Your task to perform on an android device: Search for usb-c on costco, select the first entry, add it to the cart, then select checkout. Image 0: 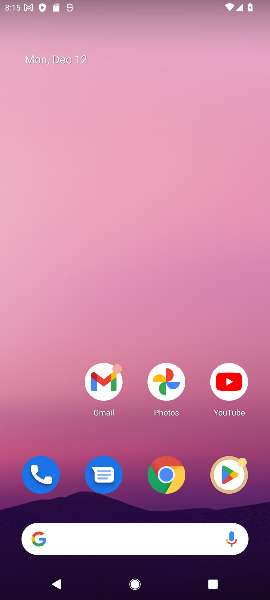
Step 0: press home button
Your task to perform on an android device: Search for usb-c on costco, select the first entry, add it to the cart, then select checkout. Image 1: 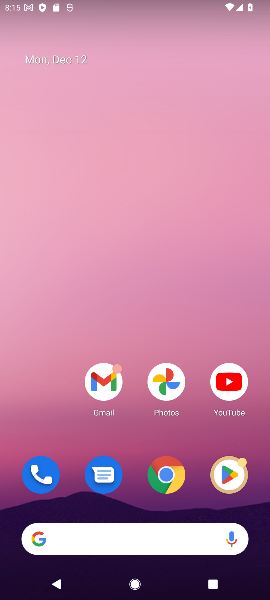
Step 1: click (167, 473)
Your task to perform on an android device: Search for usb-c on costco, select the first entry, add it to the cart, then select checkout. Image 2: 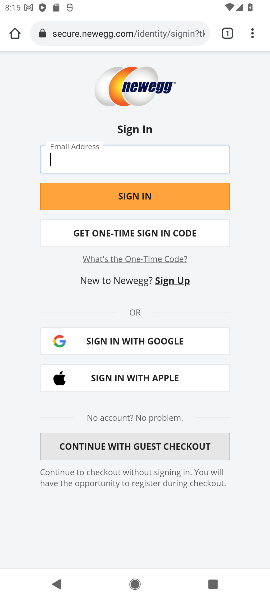
Step 2: click (99, 33)
Your task to perform on an android device: Search for usb-c on costco, select the first entry, add it to the cart, then select checkout. Image 3: 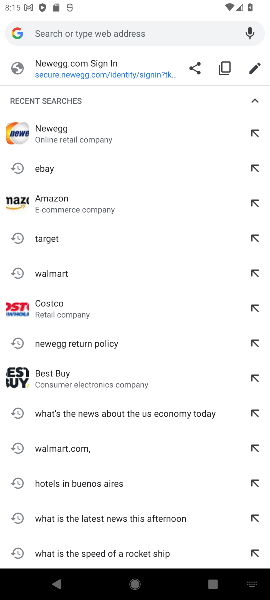
Step 3: type "costco"
Your task to perform on an android device: Search for usb-c on costco, select the first entry, add it to the cart, then select checkout. Image 4: 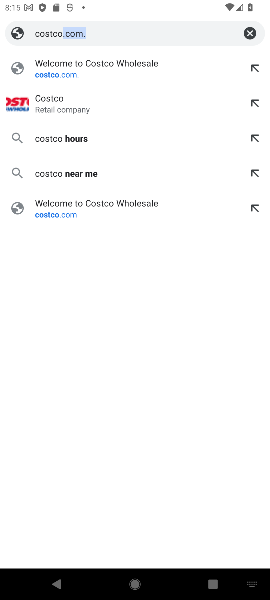
Step 4: click (54, 106)
Your task to perform on an android device: Search for usb-c on costco, select the first entry, add it to the cart, then select checkout. Image 5: 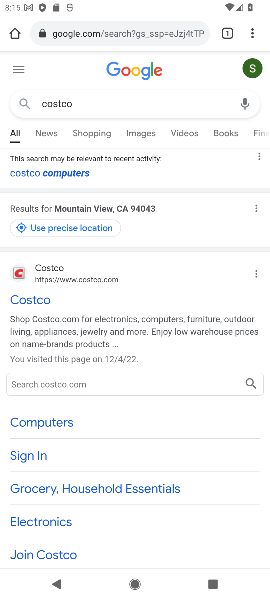
Step 5: click (52, 272)
Your task to perform on an android device: Search for usb-c on costco, select the first entry, add it to the cart, then select checkout. Image 6: 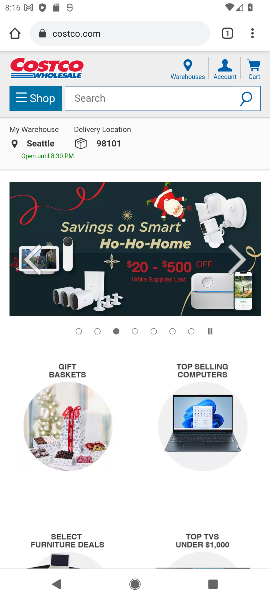
Step 6: click (153, 84)
Your task to perform on an android device: Search for usb-c on costco, select the first entry, add it to the cart, then select checkout. Image 7: 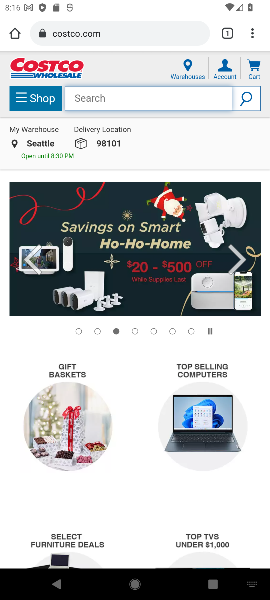
Step 7: click (175, 97)
Your task to perform on an android device: Search for usb-c on costco, select the first entry, add it to the cart, then select checkout. Image 8: 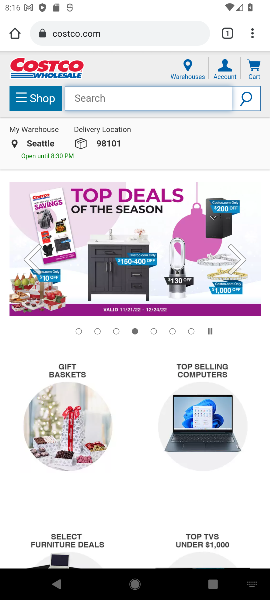
Step 8: click (149, 101)
Your task to perform on an android device: Search for usb-c on costco, select the first entry, add it to the cart, then select checkout. Image 9: 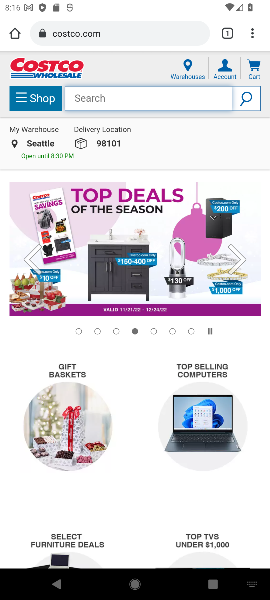
Step 9: click (95, 99)
Your task to perform on an android device: Search for usb-c on costco, select the first entry, add it to the cart, then select checkout. Image 10: 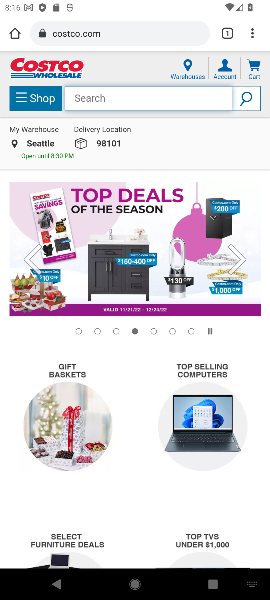
Step 10: click (148, 98)
Your task to perform on an android device: Search for usb-c on costco, select the first entry, add it to the cart, then select checkout. Image 11: 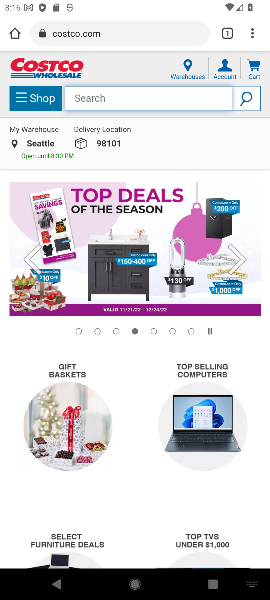
Step 11: click (148, 98)
Your task to perform on an android device: Search for usb-c on costco, select the first entry, add it to the cart, then select checkout. Image 12: 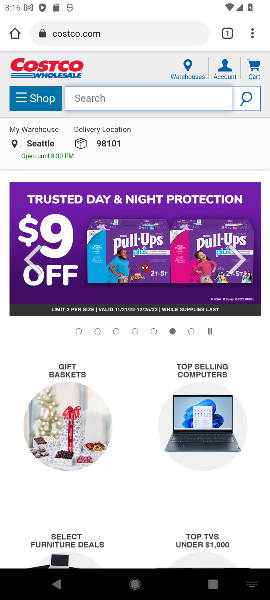
Step 12: type "usb-c"
Your task to perform on an android device: Search for usb-c on costco, select the first entry, add it to the cart, then select checkout. Image 13: 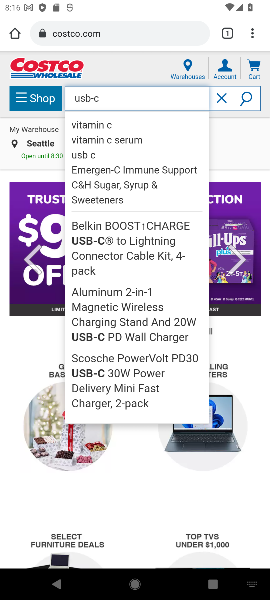
Step 13: click (245, 97)
Your task to perform on an android device: Search for usb-c on costco, select the first entry, add it to the cart, then select checkout. Image 14: 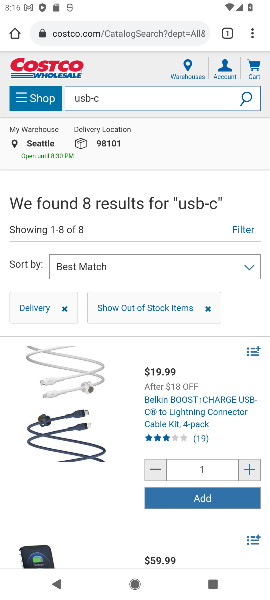
Step 14: click (168, 410)
Your task to perform on an android device: Search for usb-c on costco, select the first entry, add it to the cart, then select checkout. Image 15: 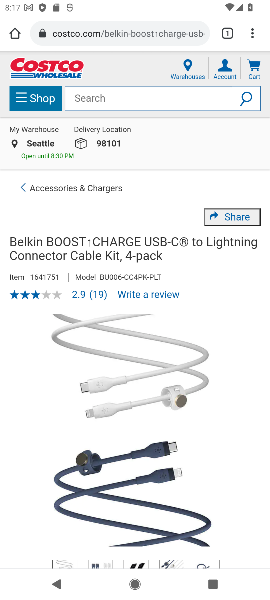
Step 15: drag from (126, 443) to (128, 206)
Your task to perform on an android device: Search for usb-c on costco, select the first entry, add it to the cart, then select checkout. Image 16: 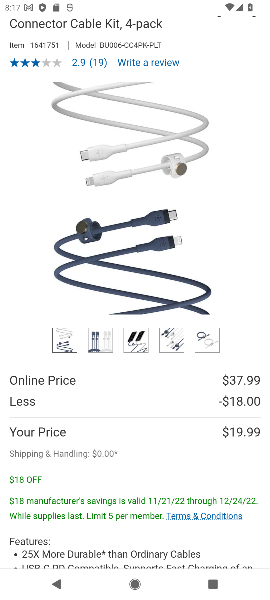
Step 16: drag from (129, 450) to (136, 267)
Your task to perform on an android device: Search for usb-c on costco, select the first entry, add it to the cart, then select checkout. Image 17: 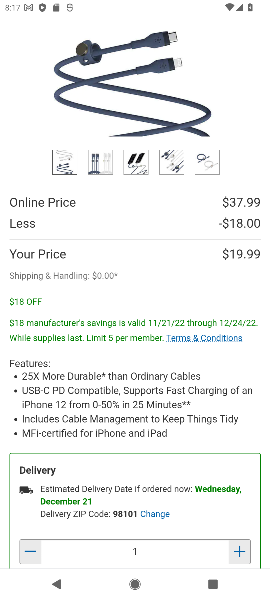
Step 17: drag from (123, 465) to (149, 247)
Your task to perform on an android device: Search for usb-c on costco, select the first entry, add it to the cart, then select checkout. Image 18: 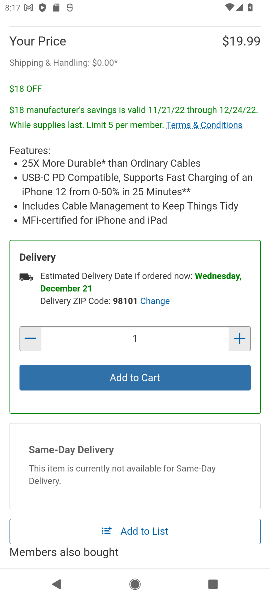
Step 18: click (140, 384)
Your task to perform on an android device: Search for usb-c on costco, select the first entry, add it to the cart, then select checkout. Image 19: 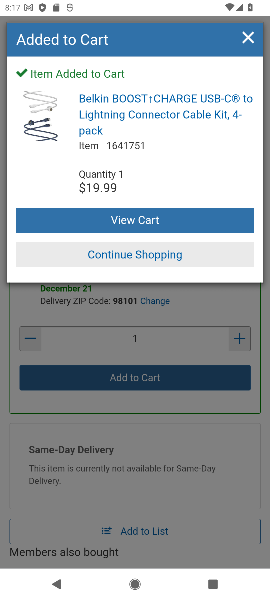
Step 19: click (131, 222)
Your task to perform on an android device: Search for usb-c on costco, select the first entry, add it to the cart, then select checkout. Image 20: 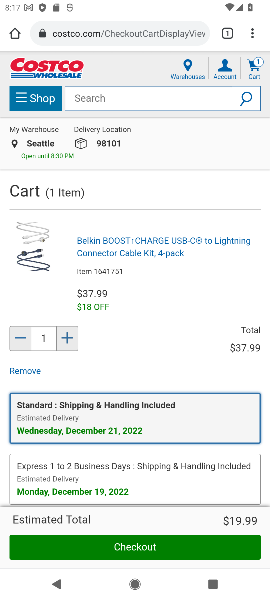
Step 20: click (116, 544)
Your task to perform on an android device: Search for usb-c on costco, select the first entry, add it to the cart, then select checkout. Image 21: 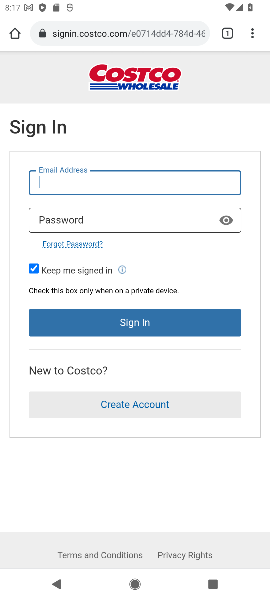
Step 21: task complete